Your task to perform on an android device: Open network settings Image 0: 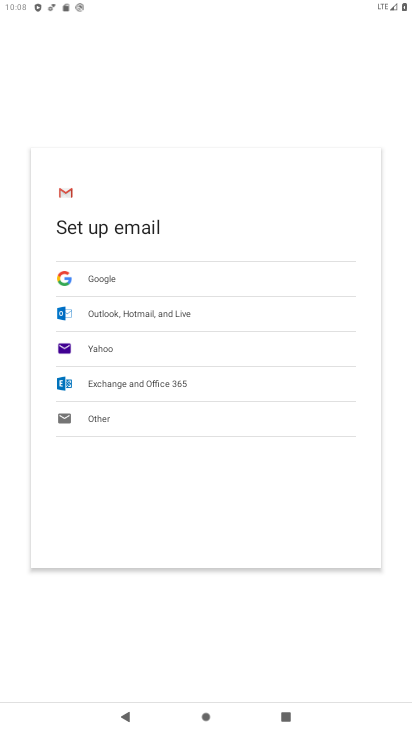
Step 0: press home button
Your task to perform on an android device: Open network settings Image 1: 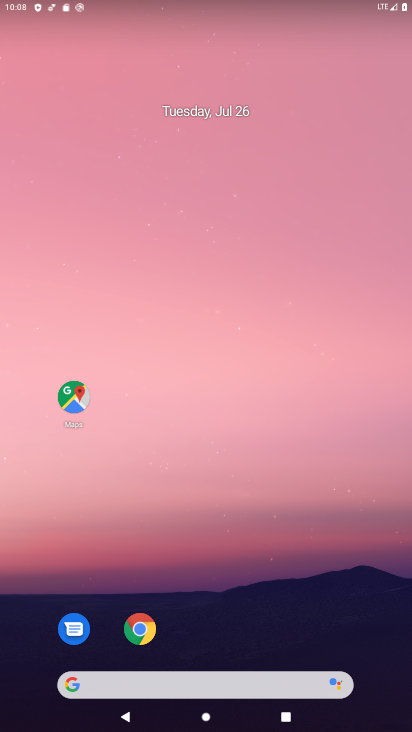
Step 1: drag from (187, 692) to (208, 216)
Your task to perform on an android device: Open network settings Image 2: 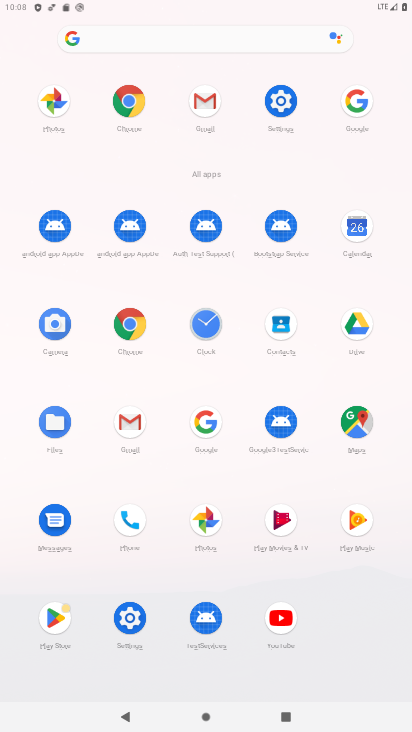
Step 2: click (128, 619)
Your task to perform on an android device: Open network settings Image 3: 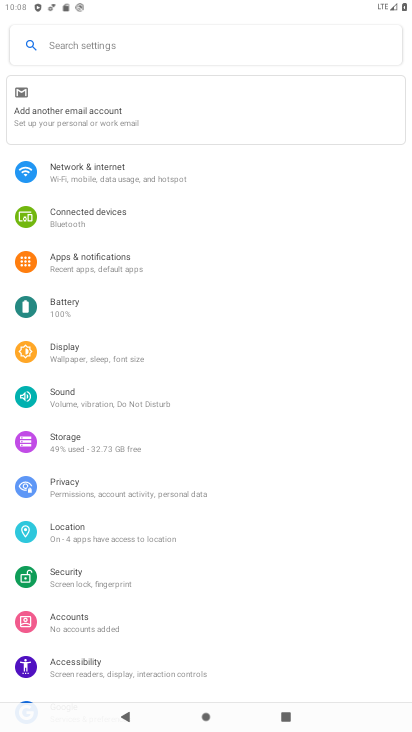
Step 3: click (103, 173)
Your task to perform on an android device: Open network settings Image 4: 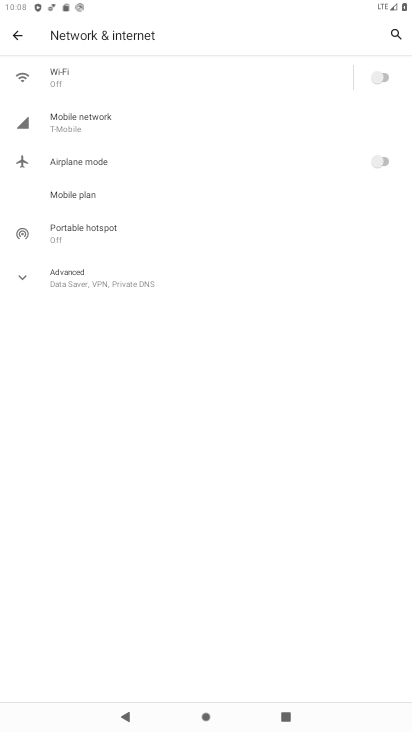
Step 4: task complete